Your task to perform on an android device: Open accessibility settings Image 0: 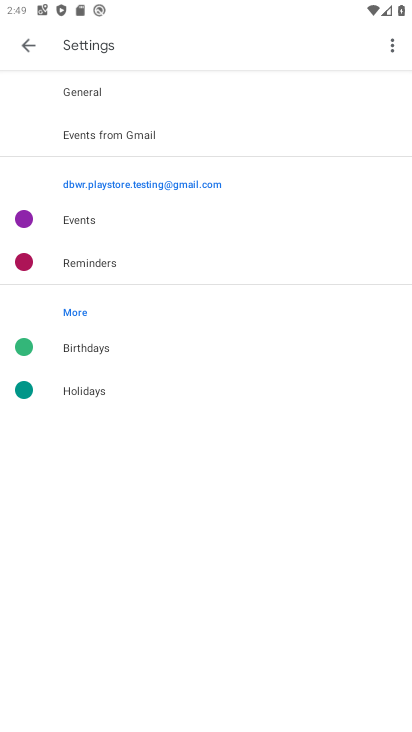
Step 0: press home button
Your task to perform on an android device: Open accessibility settings Image 1: 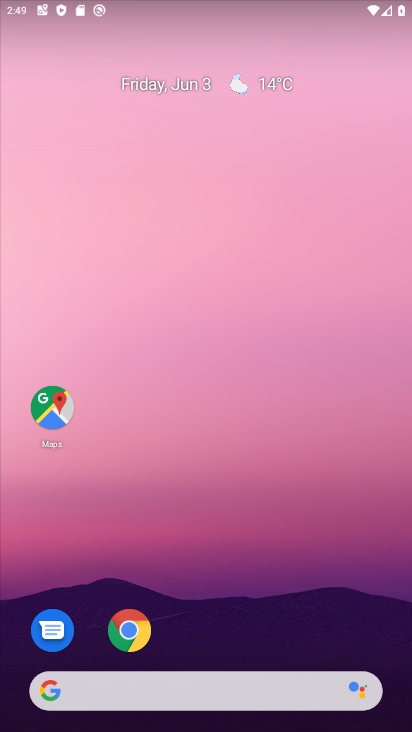
Step 1: drag from (252, 639) to (211, 246)
Your task to perform on an android device: Open accessibility settings Image 2: 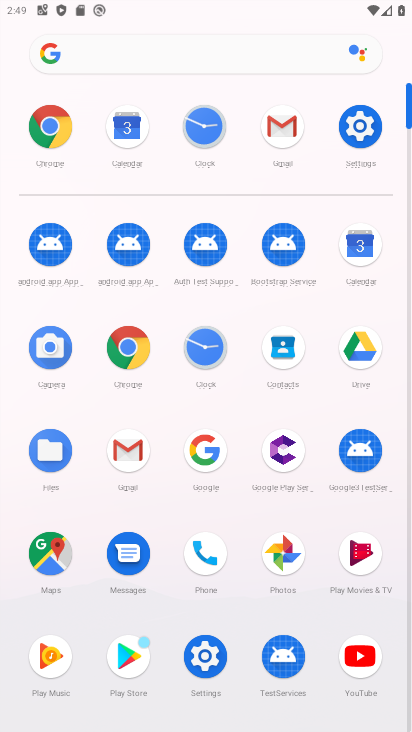
Step 2: click (361, 130)
Your task to perform on an android device: Open accessibility settings Image 3: 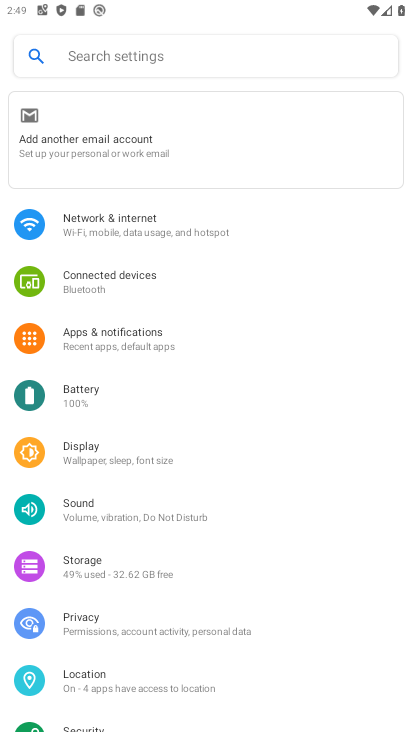
Step 3: drag from (186, 639) to (167, 260)
Your task to perform on an android device: Open accessibility settings Image 4: 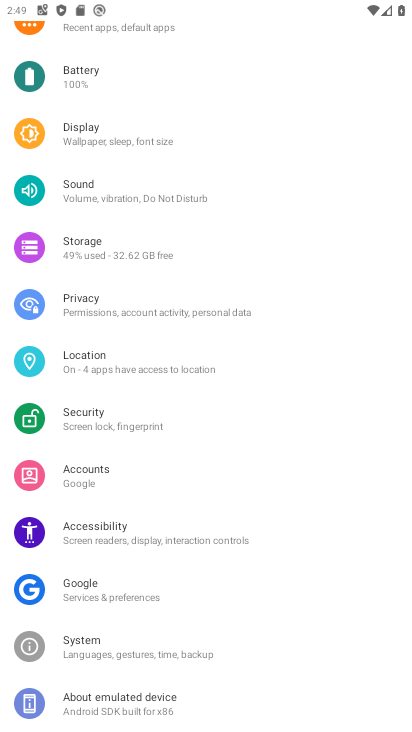
Step 4: drag from (146, 626) to (123, 242)
Your task to perform on an android device: Open accessibility settings Image 5: 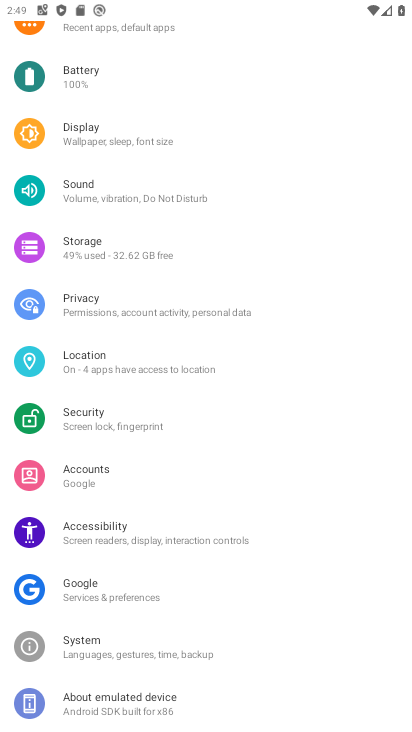
Step 5: click (124, 534)
Your task to perform on an android device: Open accessibility settings Image 6: 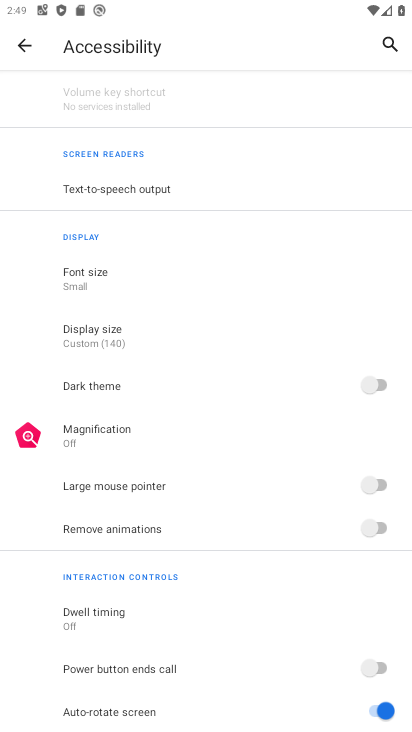
Step 6: task complete